Your task to perform on an android device: turn on priority inbox in the gmail app Image 0: 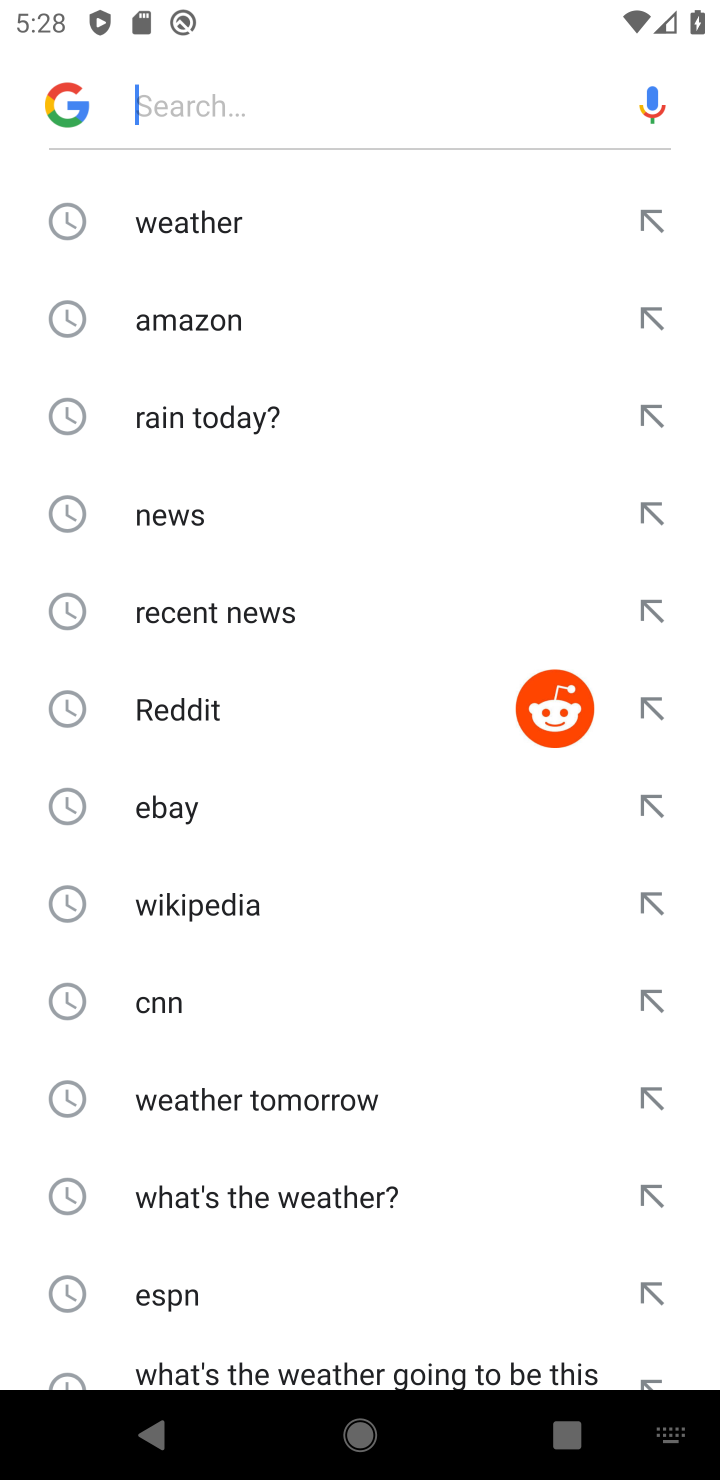
Step 0: press home button
Your task to perform on an android device: turn on priority inbox in the gmail app Image 1: 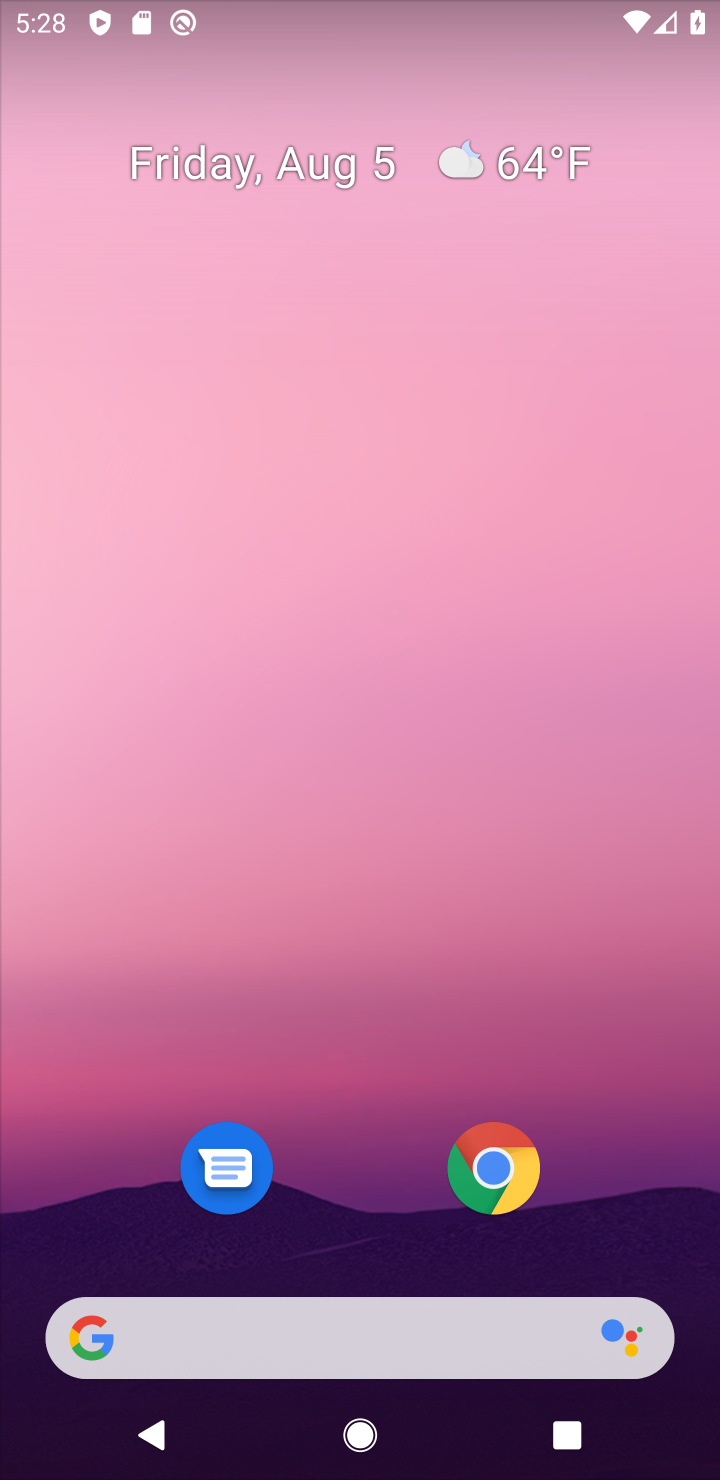
Step 1: drag from (411, 1232) to (483, 0)
Your task to perform on an android device: turn on priority inbox in the gmail app Image 2: 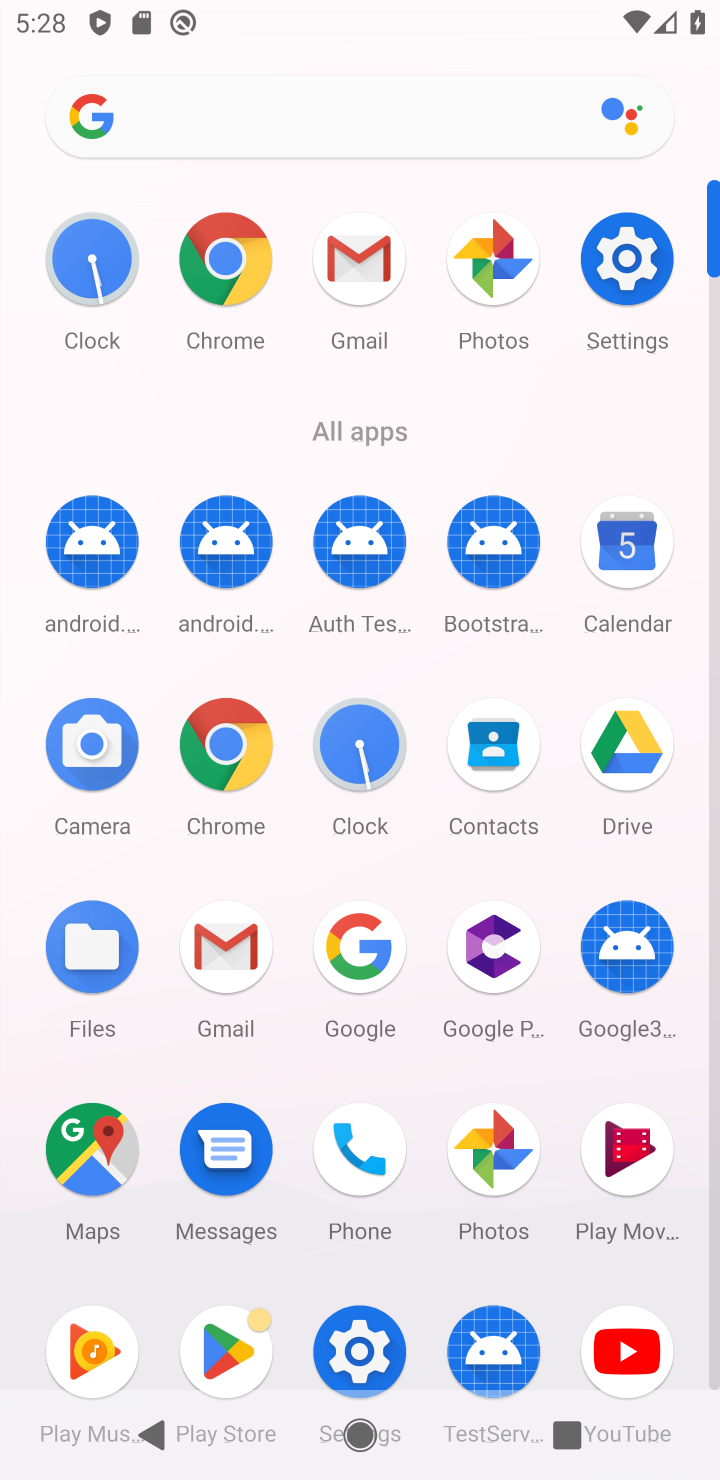
Step 2: click (195, 953)
Your task to perform on an android device: turn on priority inbox in the gmail app Image 3: 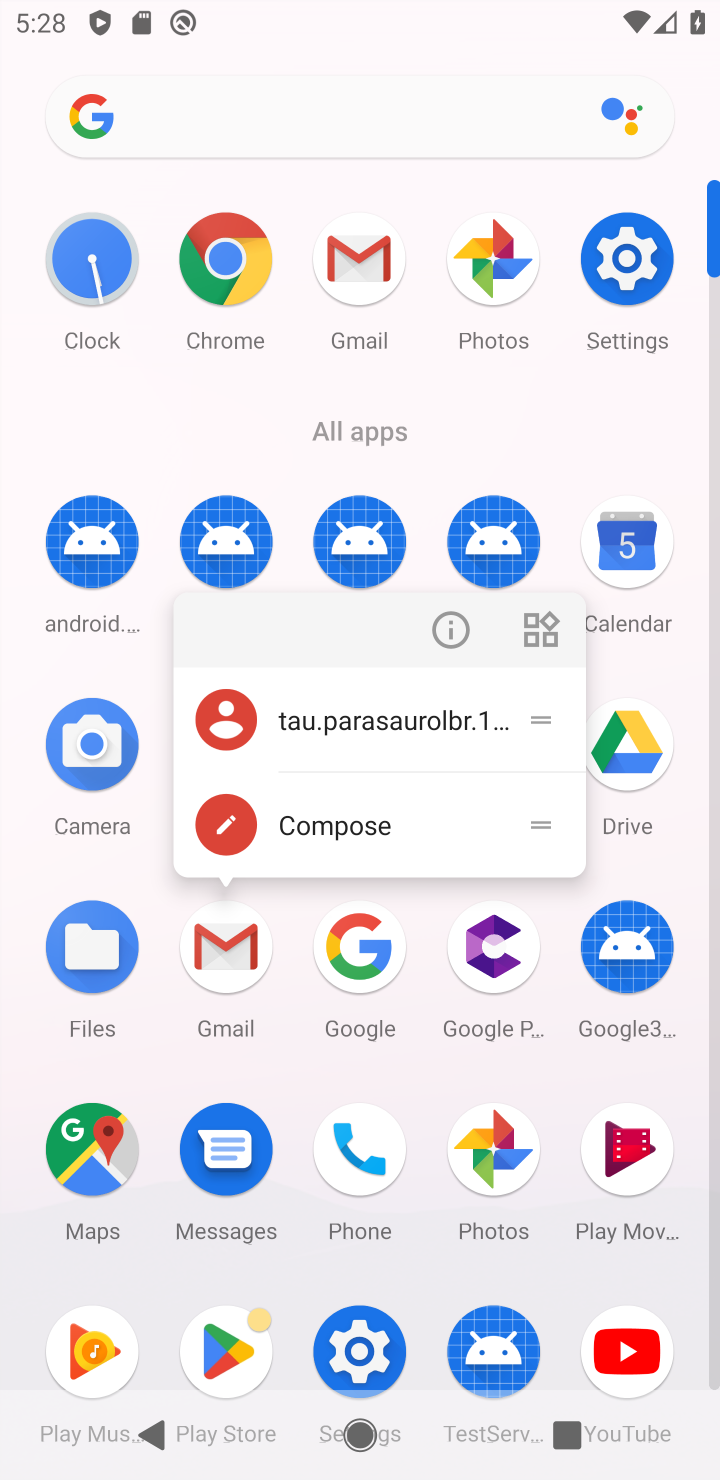
Step 3: click (227, 962)
Your task to perform on an android device: turn on priority inbox in the gmail app Image 4: 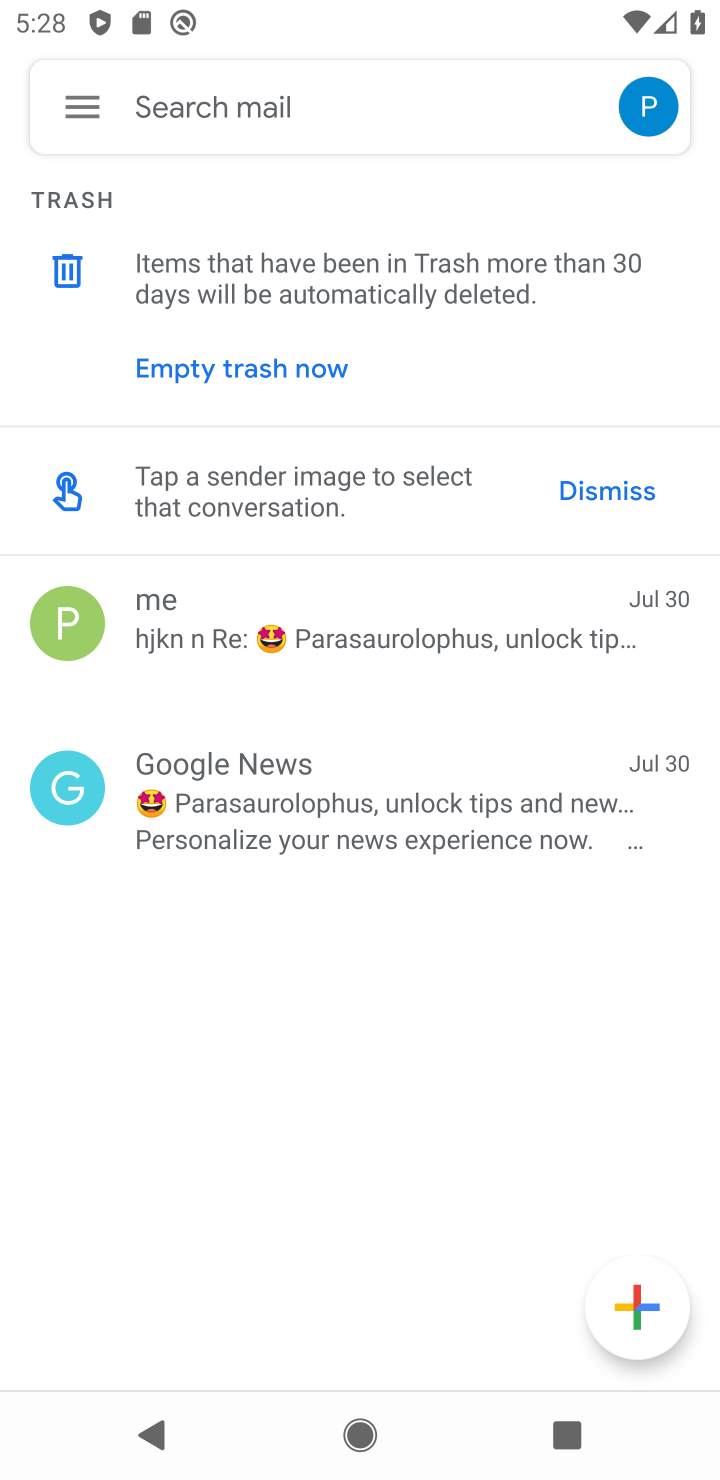
Step 4: click (78, 104)
Your task to perform on an android device: turn on priority inbox in the gmail app Image 5: 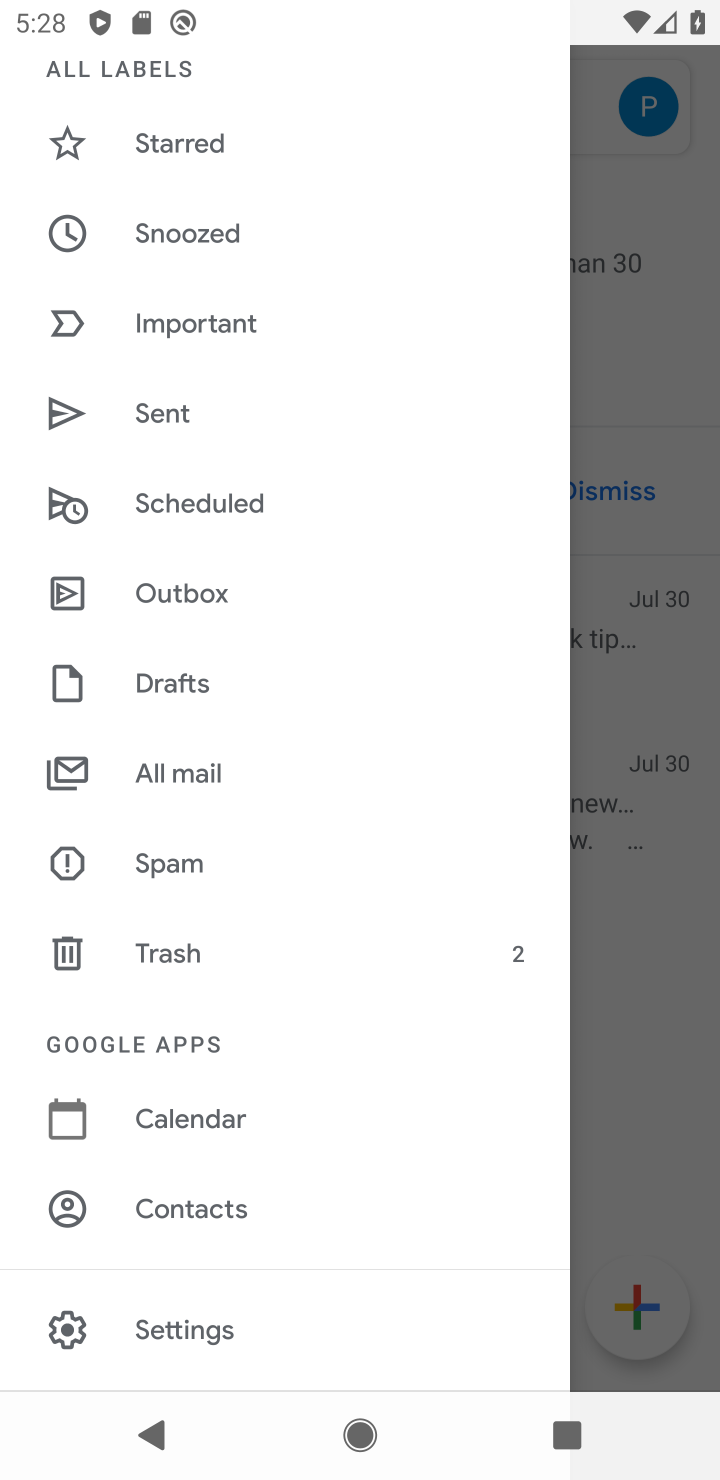
Step 5: click (170, 1336)
Your task to perform on an android device: turn on priority inbox in the gmail app Image 6: 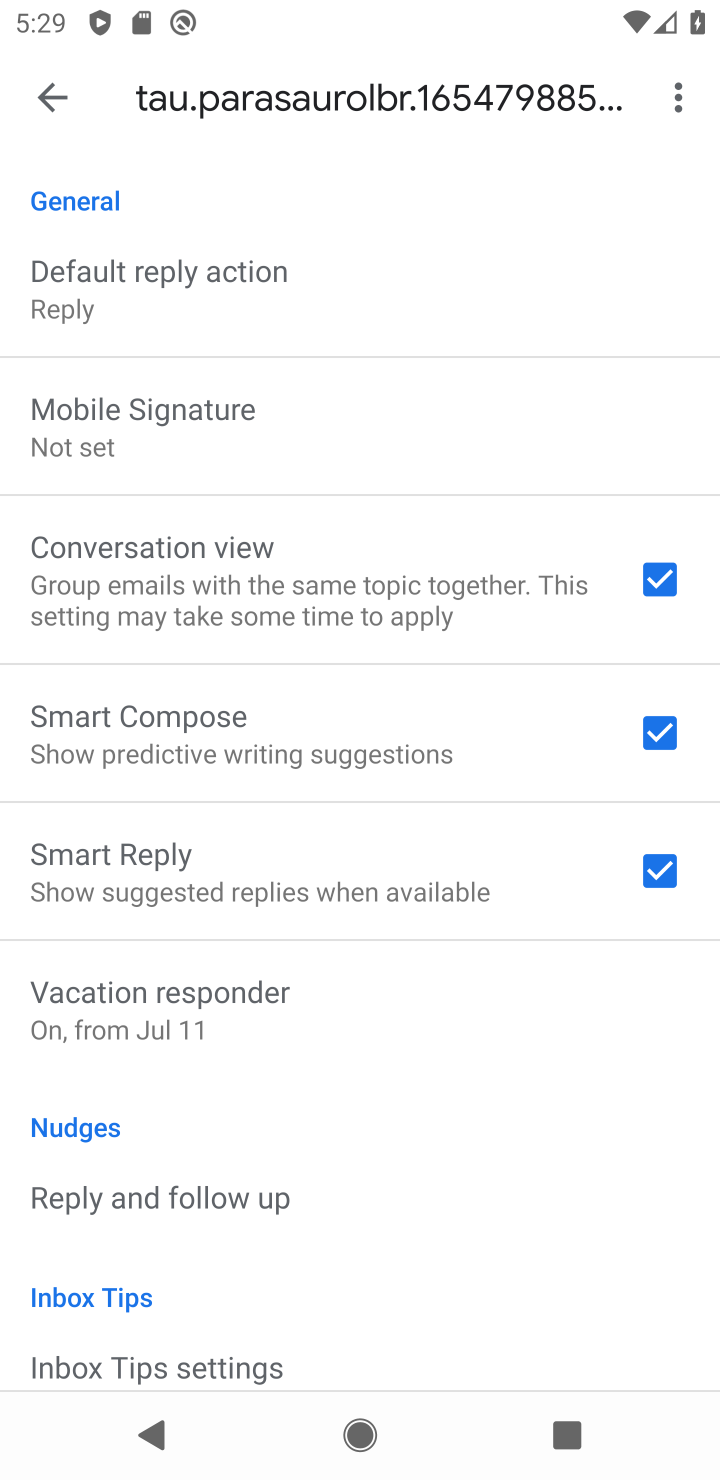
Step 6: drag from (335, 323) to (286, 929)
Your task to perform on an android device: turn on priority inbox in the gmail app Image 7: 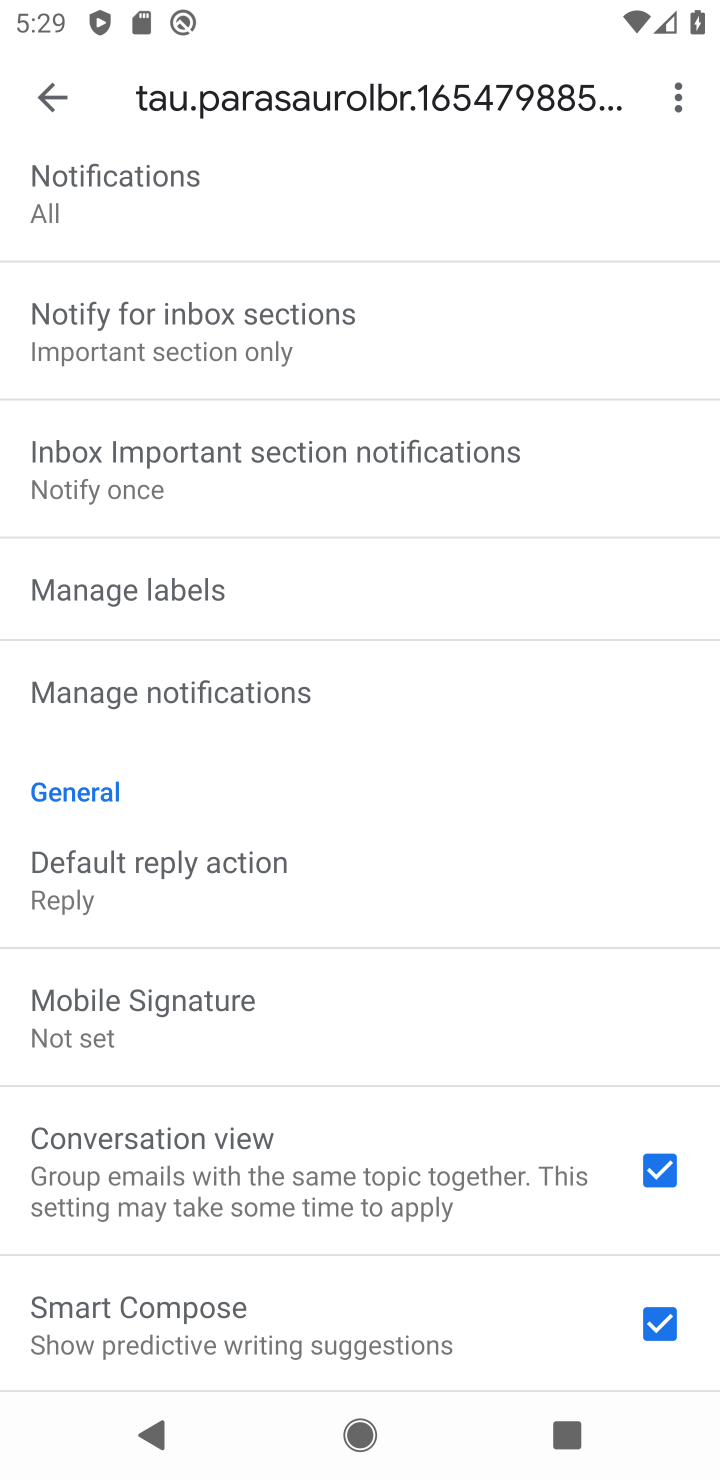
Step 7: drag from (460, 238) to (434, 1056)
Your task to perform on an android device: turn on priority inbox in the gmail app Image 8: 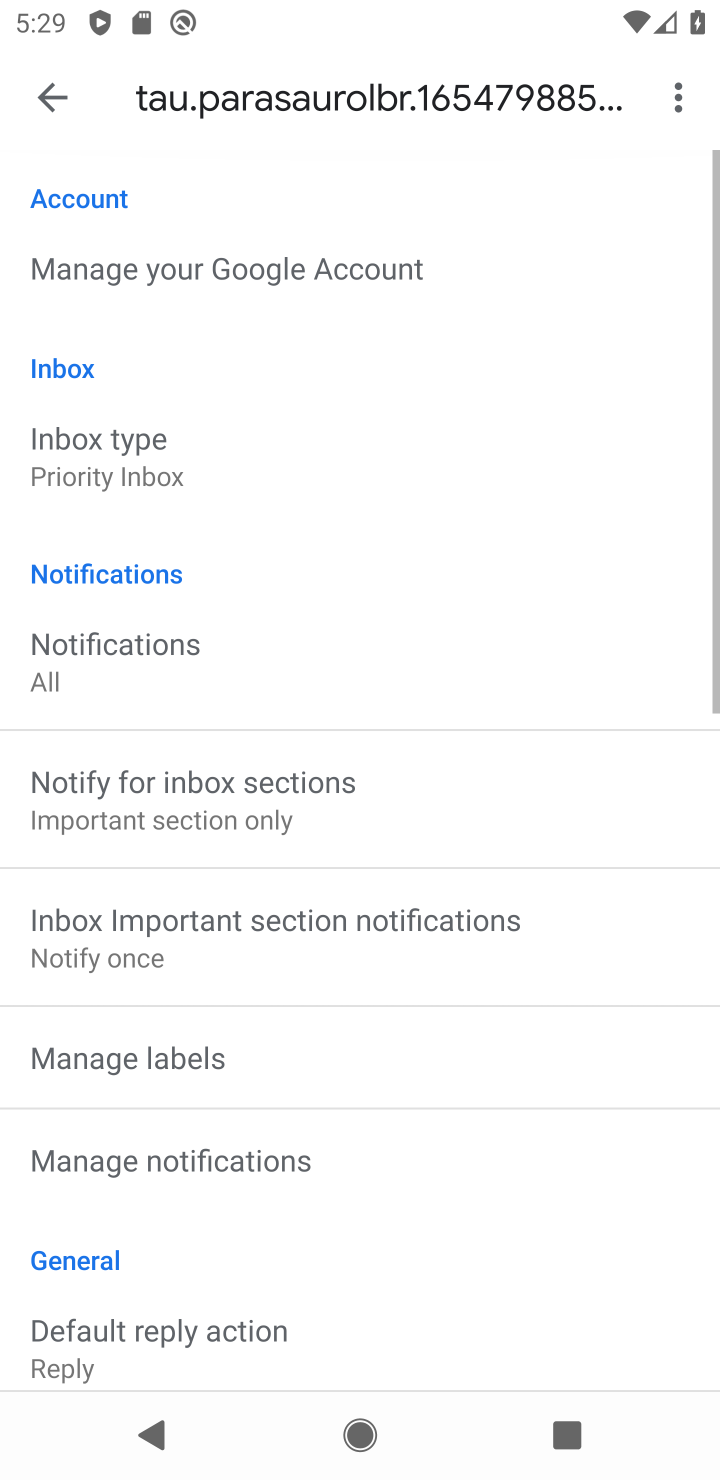
Step 8: click (115, 467)
Your task to perform on an android device: turn on priority inbox in the gmail app Image 9: 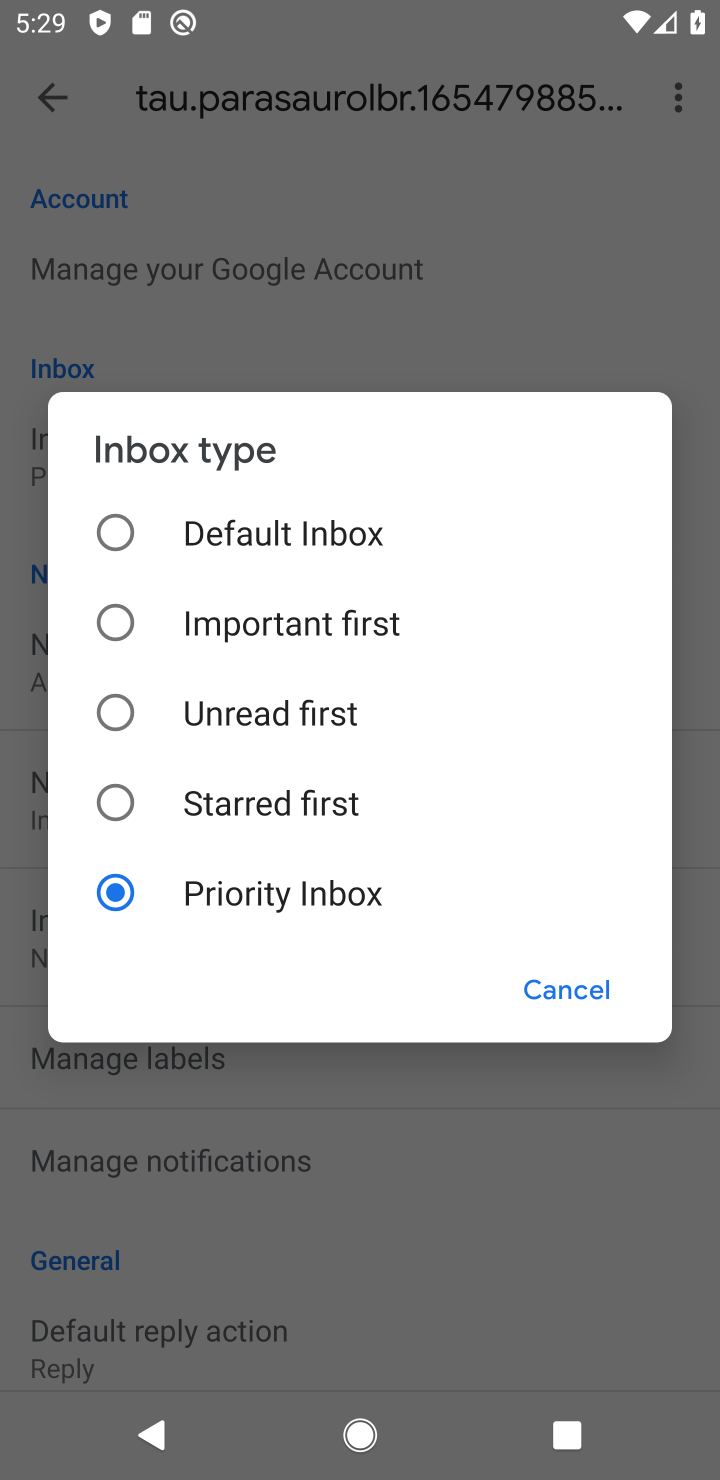
Step 9: task complete